Your task to perform on an android device: toggle notification dots Image 0: 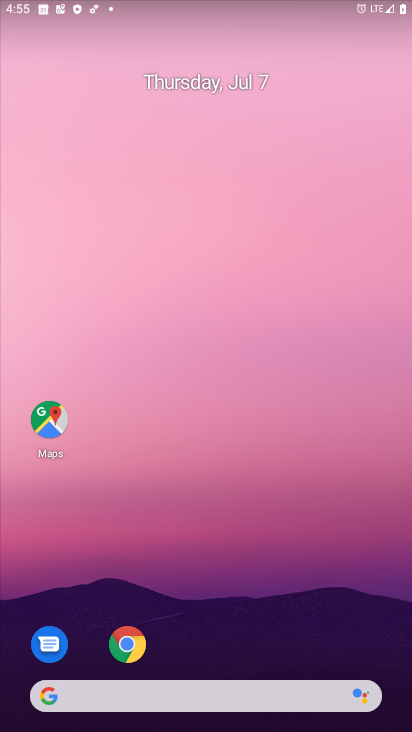
Step 0: drag from (237, 656) to (254, 11)
Your task to perform on an android device: toggle notification dots Image 1: 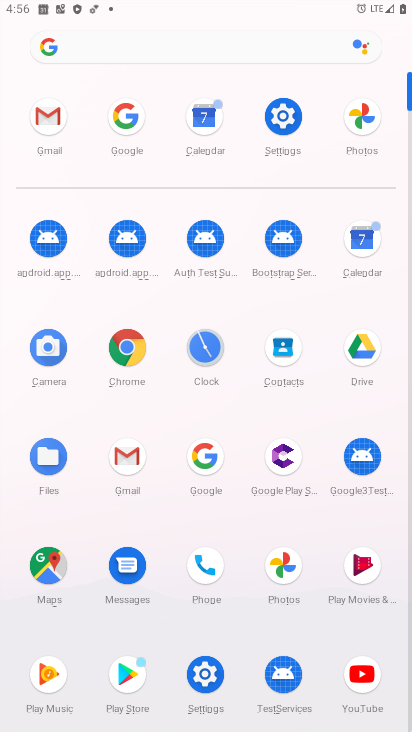
Step 1: click (284, 114)
Your task to perform on an android device: toggle notification dots Image 2: 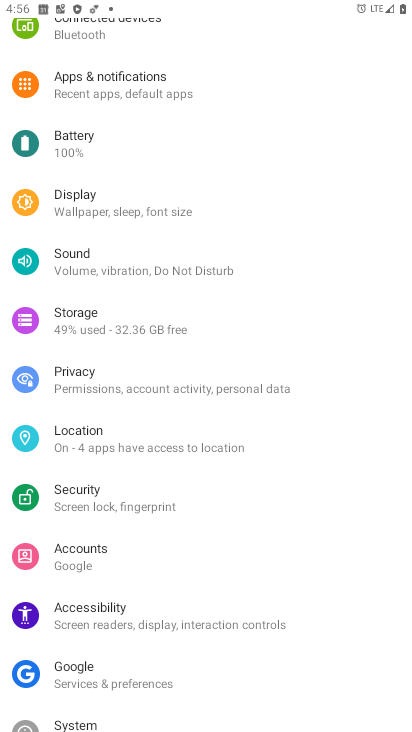
Step 2: click (147, 79)
Your task to perform on an android device: toggle notification dots Image 3: 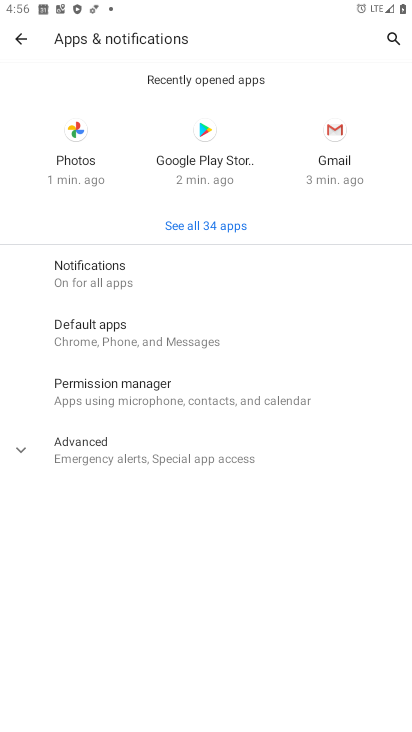
Step 3: click (96, 267)
Your task to perform on an android device: toggle notification dots Image 4: 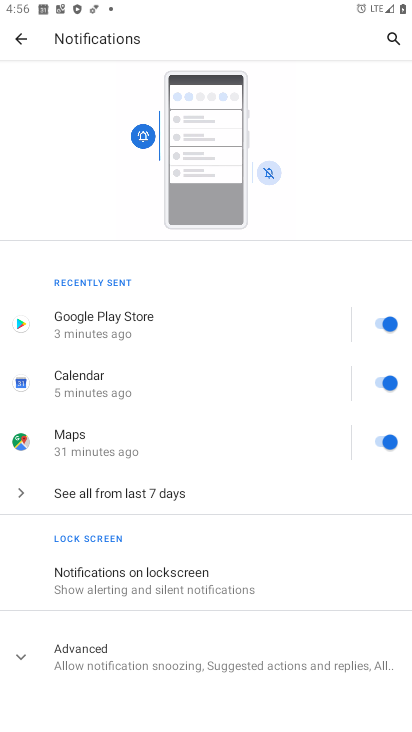
Step 4: click (132, 665)
Your task to perform on an android device: toggle notification dots Image 5: 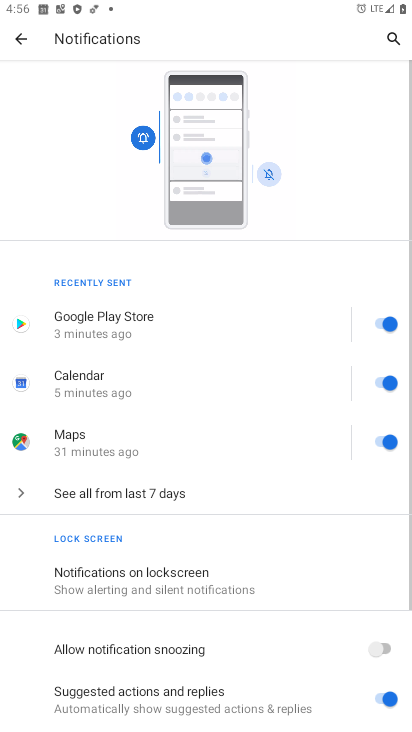
Step 5: drag from (145, 620) to (231, 458)
Your task to perform on an android device: toggle notification dots Image 6: 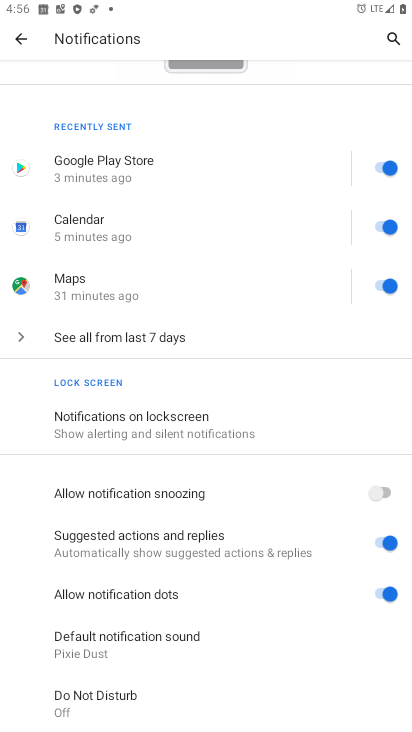
Step 6: drag from (176, 613) to (244, 517)
Your task to perform on an android device: toggle notification dots Image 7: 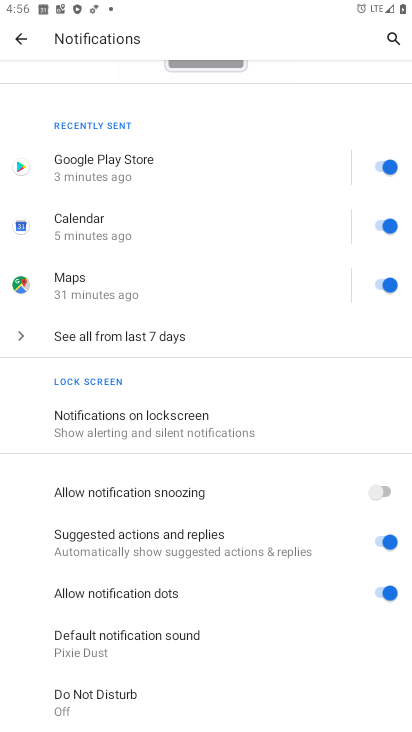
Step 7: click (385, 586)
Your task to perform on an android device: toggle notification dots Image 8: 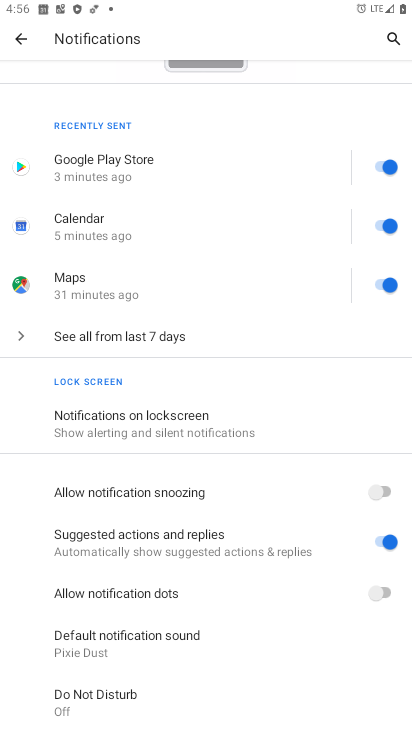
Step 8: task complete